Your task to perform on an android device: open the mobile data screen to see how much data has been used Image 0: 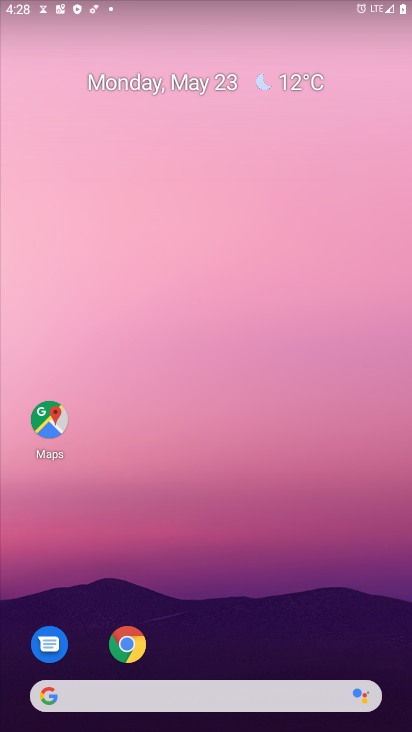
Step 0: drag from (233, 637) to (160, 88)
Your task to perform on an android device: open the mobile data screen to see how much data has been used Image 1: 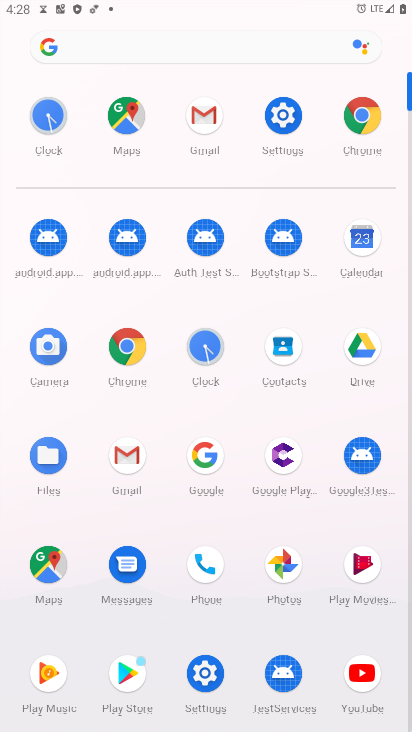
Step 1: click (291, 117)
Your task to perform on an android device: open the mobile data screen to see how much data has been used Image 2: 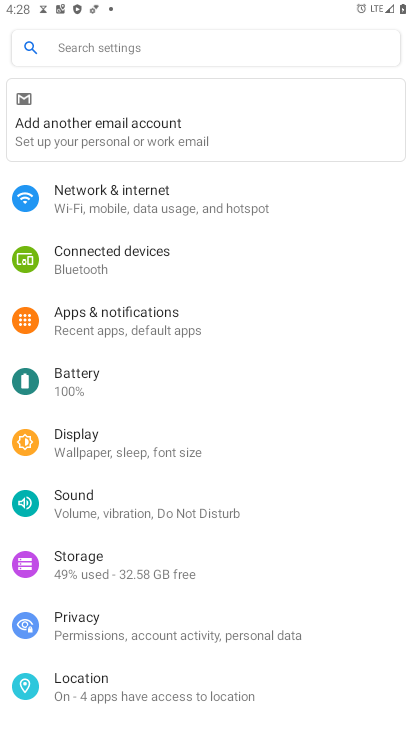
Step 2: click (109, 201)
Your task to perform on an android device: open the mobile data screen to see how much data has been used Image 3: 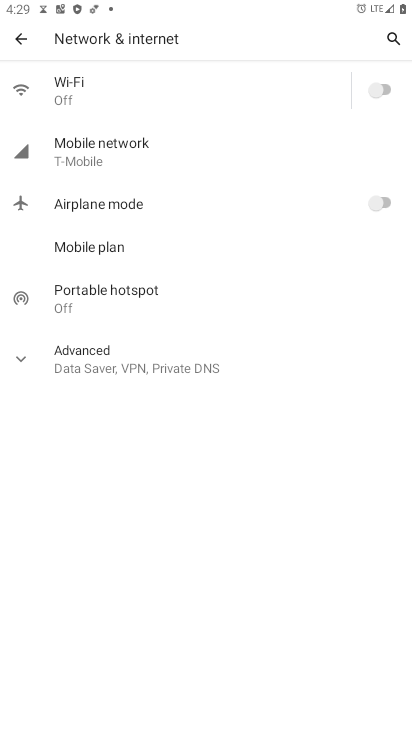
Step 3: click (113, 158)
Your task to perform on an android device: open the mobile data screen to see how much data has been used Image 4: 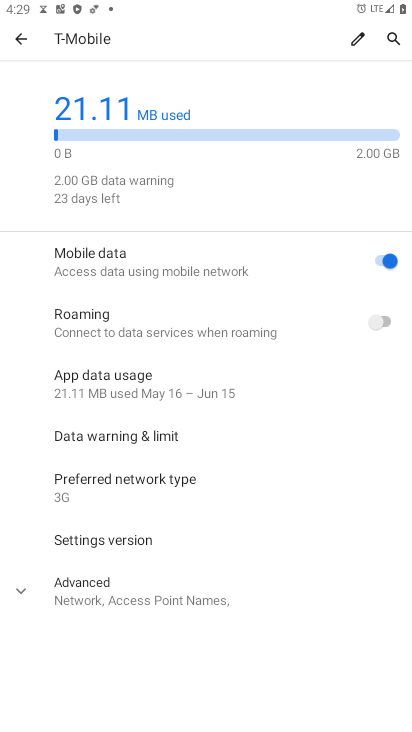
Step 4: task complete